Your task to perform on an android device: all mails in gmail Image 0: 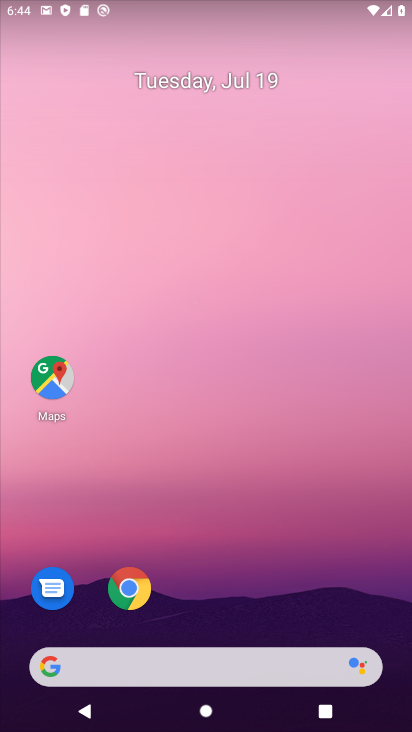
Step 0: drag from (208, 608) to (279, 0)
Your task to perform on an android device: all mails in gmail Image 1: 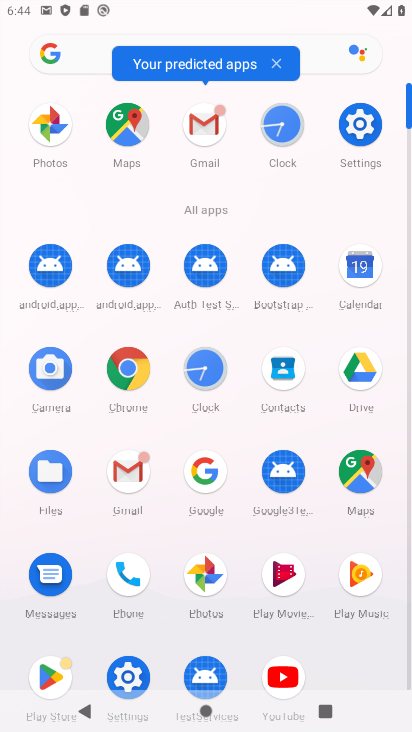
Step 1: click (131, 477)
Your task to perform on an android device: all mails in gmail Image 2: 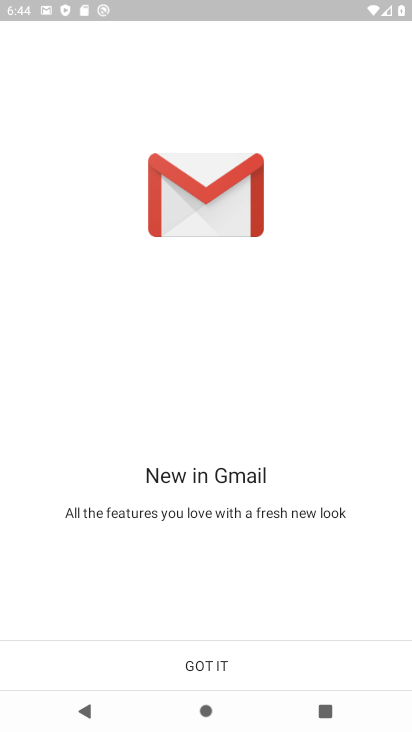
Step 2: click (206, 662)
Your task to perform on an android device: all mails in gmail Image 3: 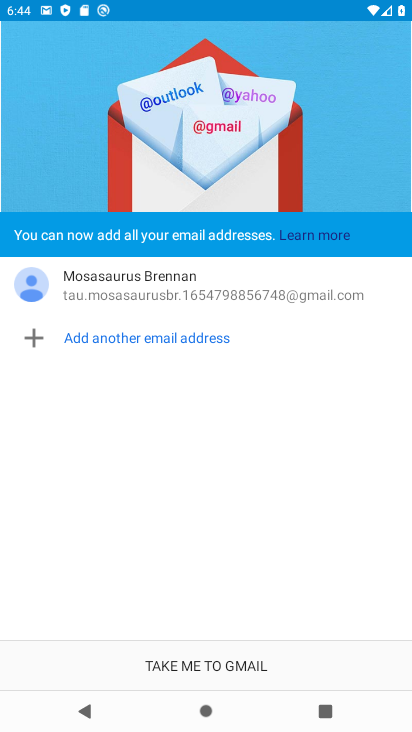
Step 3: click (261, 670)
Your task to perform on an android device: all mails in gmail Image 4: 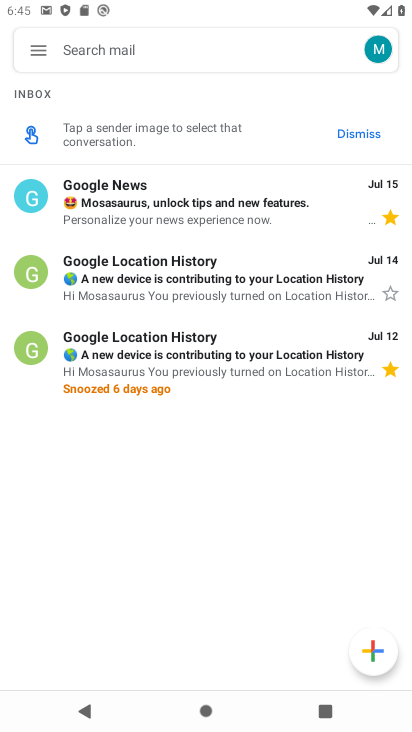
Step 4: click (25, 51)
Your task to perform on an android device: all mails in gmail Image 5: 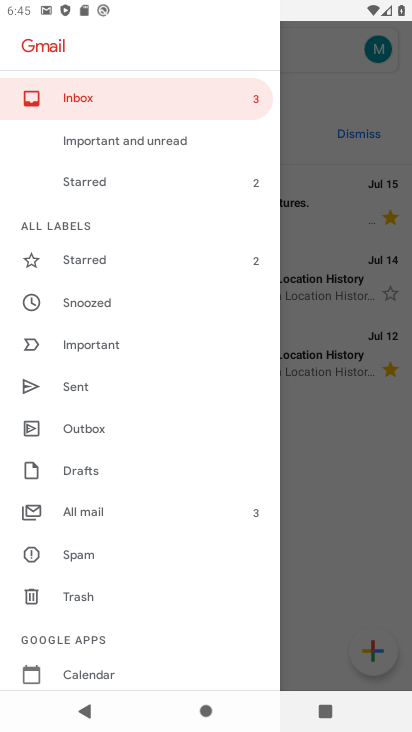
Step 5: click (120, 512)
Your task to perform on an android device: all mails in gmail Image 6: 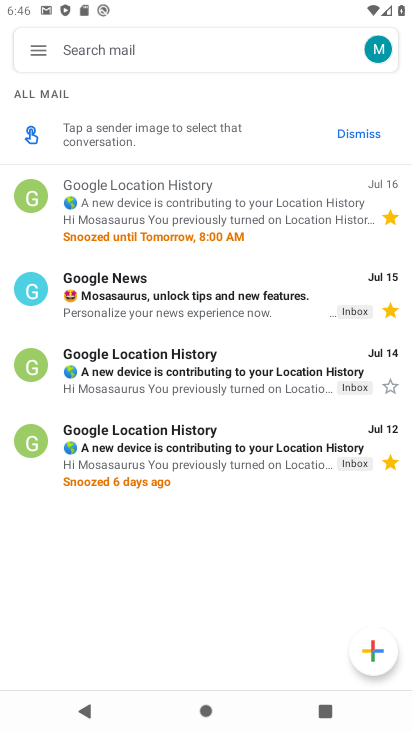
Step 6: task complete